Your task to perform on an android device: open app "DuckDuckGo Privacy Browser" (install if not already installed) Image 0: 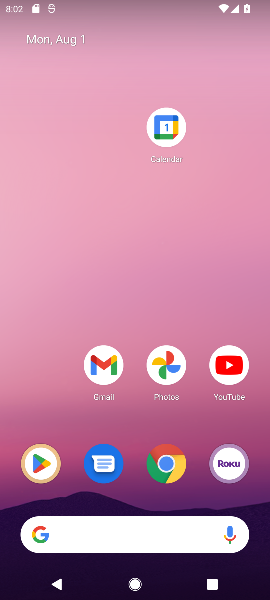
Step 0: click (57, 483)
Your task to perform on an android device: open app "DuckDuckGo Privacy Browser" (install if not already installed) Image 1: 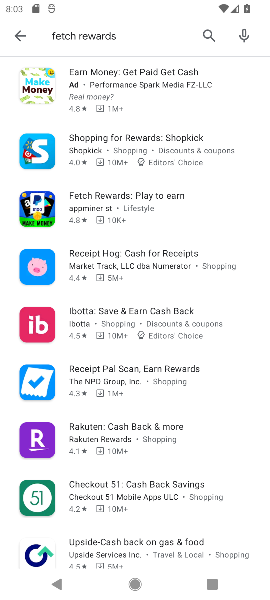
Step 1: click (203, 46)
Your task to perform on an android device: open app "DuckDuckGo Privacy Browser" (install if not already installed) Image 2: 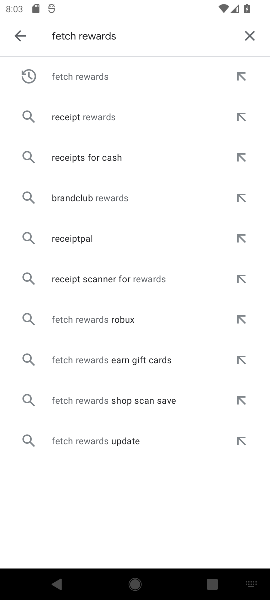
Step 2: click (256, 39)
Your task to perform on an android device: open app "DuckDuckGo Privacy Browser" (install if not already installed) Image 3: 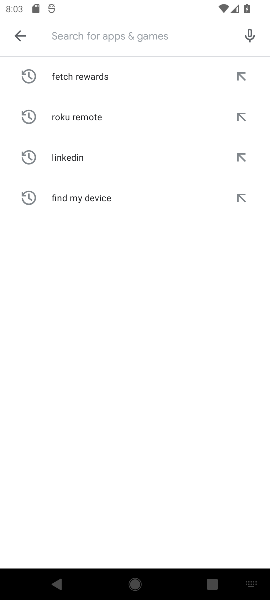
Step 3: type "duck duck go"
Your task to perform on an android device: open app "DuckDuckGo Privacy Browser" (install if not already installed) Image 4: 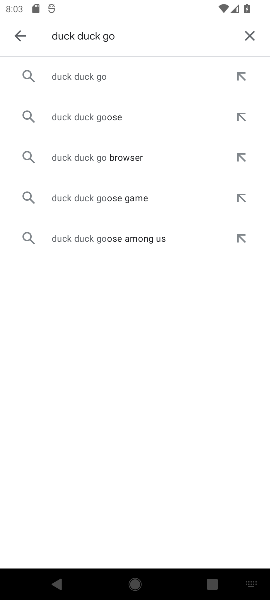
Step 4: click (127, 90)
Your task to perform on an android device: open app "DuckDuckGo Privacy Browser" (install if not already installed) Image 5: 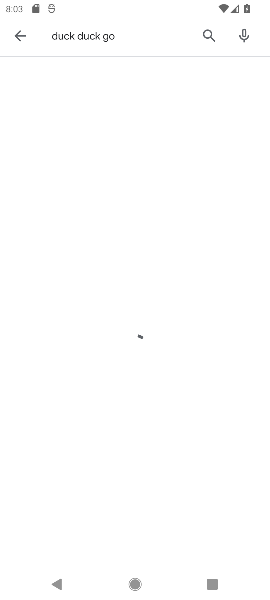
Step 5: click (127, 83)
Your task to perform on an android device: open app "DuckDuckGo Privacy Browser" (install if not already installed) Image 6: 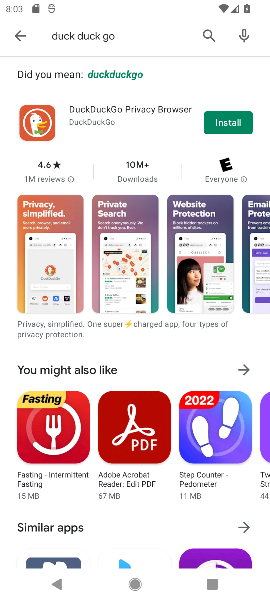
Step 6: click (234, 132)
Your task to perform on an android device: open app "DuckDuckGo Privacy Browser" (install if not already installed) Image 7: 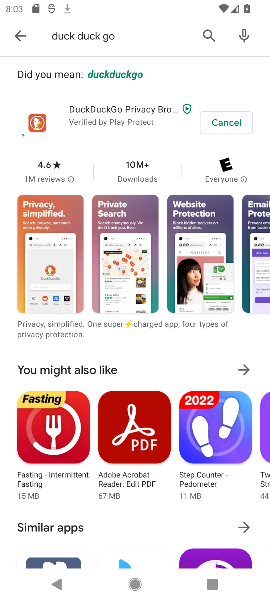
Step 7: task complete